Your task to perform on an android device: Open Google Image 0: 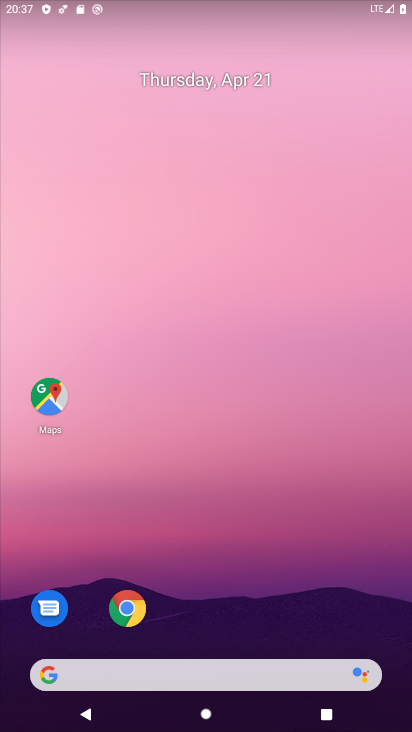
Step 0: click (151, 680)
Your task to perform on an android device: Open Google Image 1: 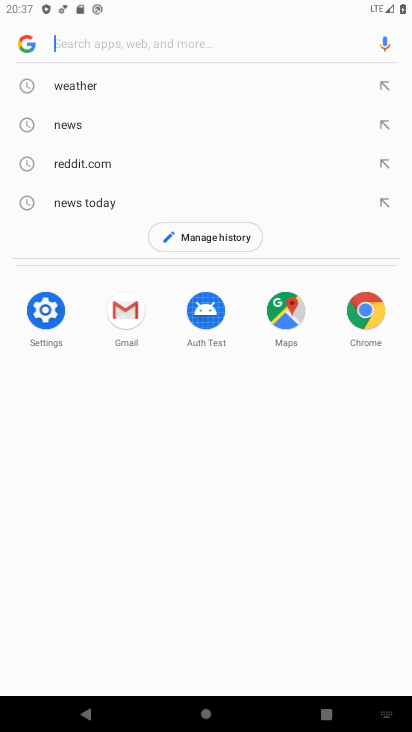
Step 1: click (24, 44)
Your task to perform on an android device: Open Google Image 2: 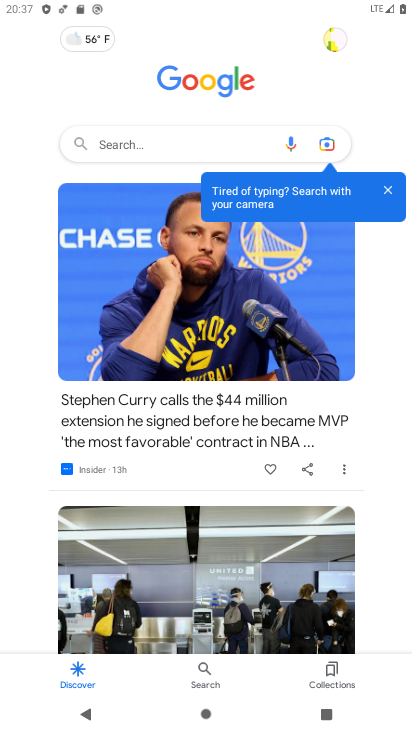
Step 2: task complete